Your task to perform on an android device: Turn off the flashlight Image 0: 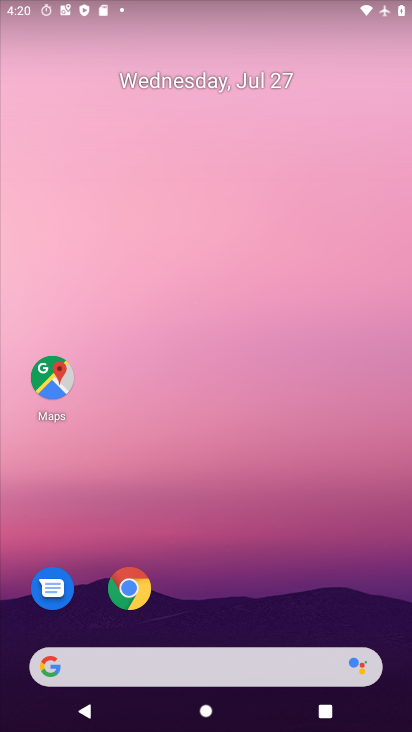
Step 0: press home button
Your task to perform on an android device: Turn off the flashlight Image 1: 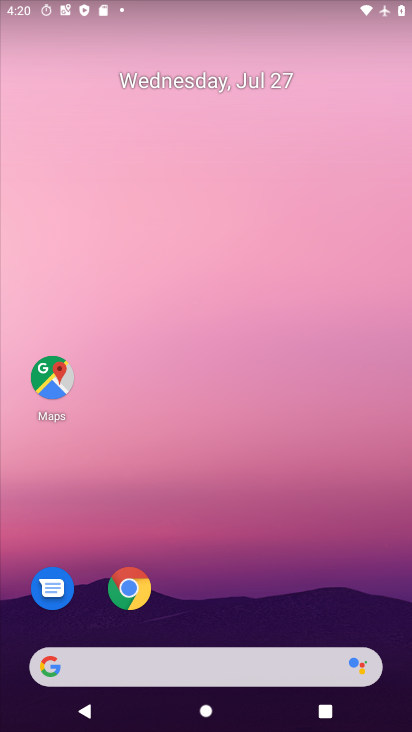
Step 1: task complete